Your task to perform on an android device: Open privacy settings Image 0: 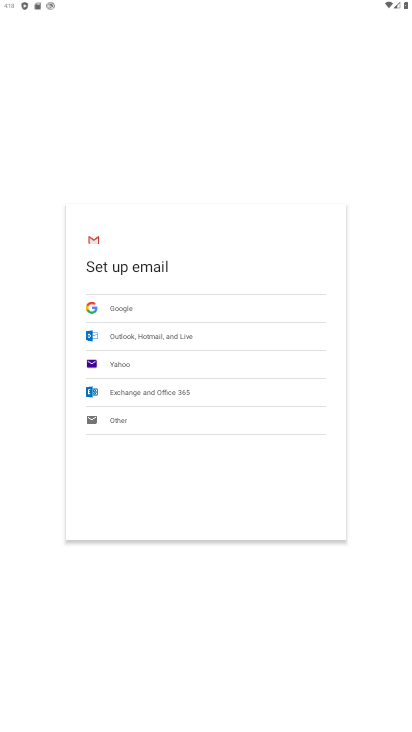
Step 0: press home button
Your task to perform on an android device: Open privacy settings Image 1: 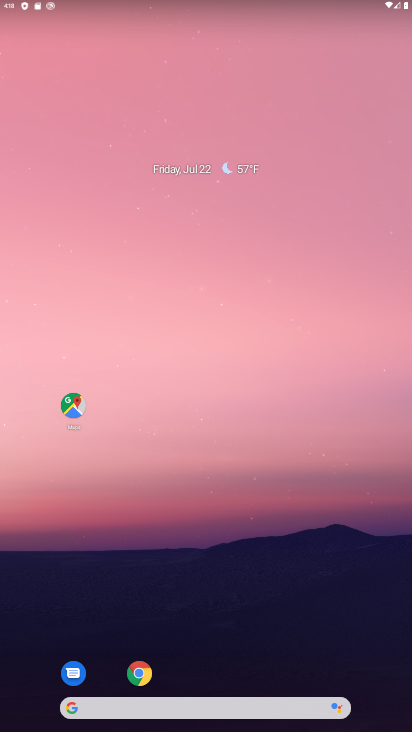
Step 1: drag from (341, 566) to (283, 149)
Your task to perform on an android device: Open privacy settings Image 2: 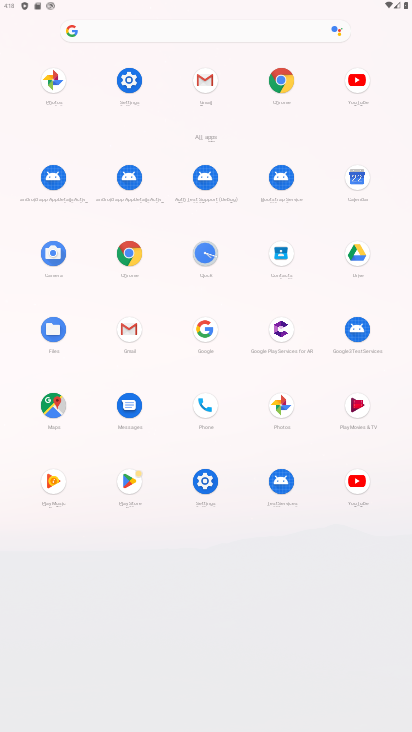
Step 2: click (208, 490)
Your task to perform on an android device: Open privacy settings Image 3: 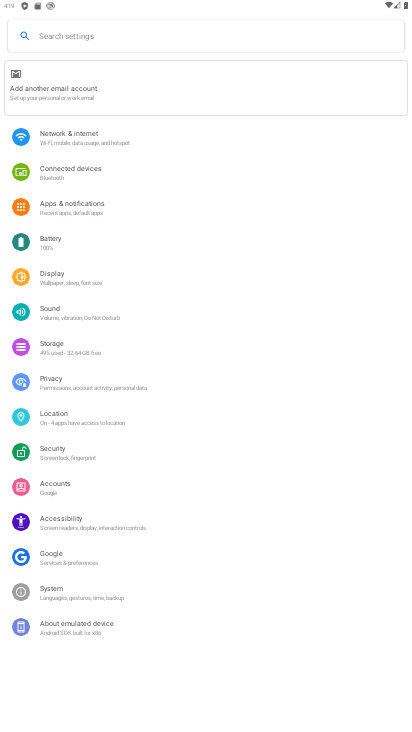
Step 3: click (50, 387)
Your task to perform on an android device: Open privacy settings Image 4: 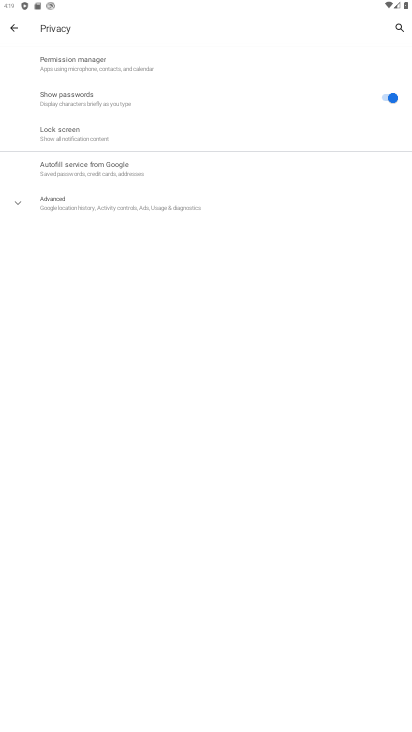
Step 4: task complete